Your task to perform on an android device: turn off airplane mode Image 0: 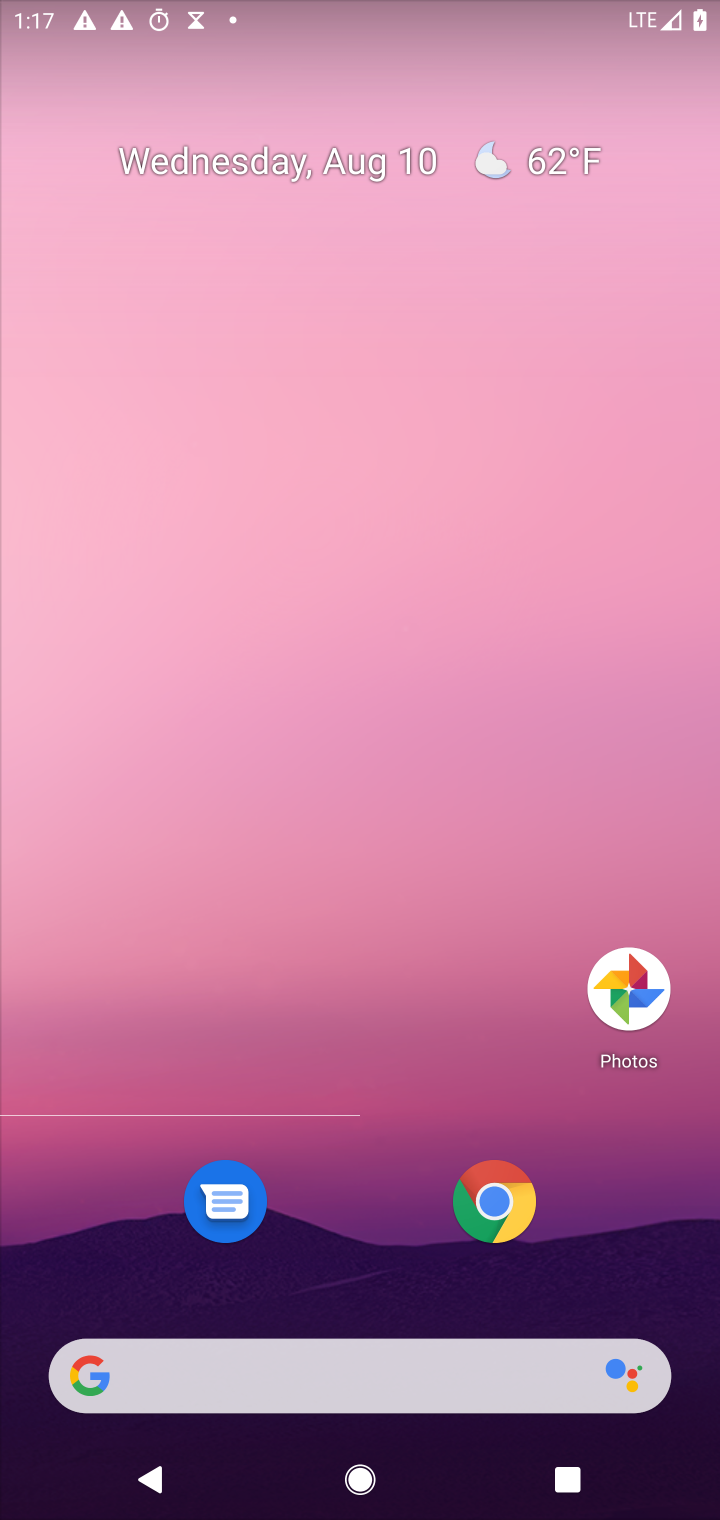
Step 0: press home button
Your task to perform on an android device: turn off airplane mode Image 1: 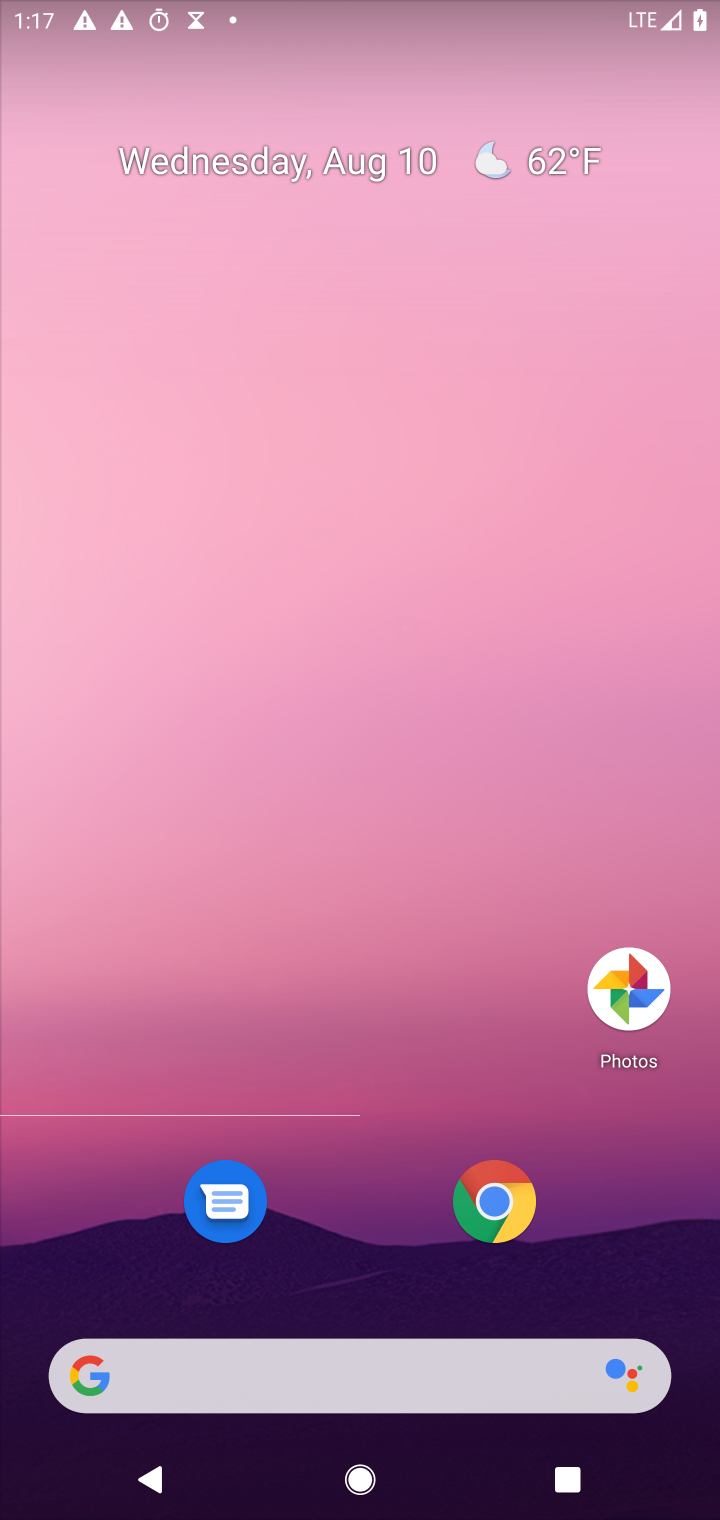
Step 1: drag from (348, 1168) to (306, 47)
Your task to perform on an android device: turn off airplane mode Image 2: 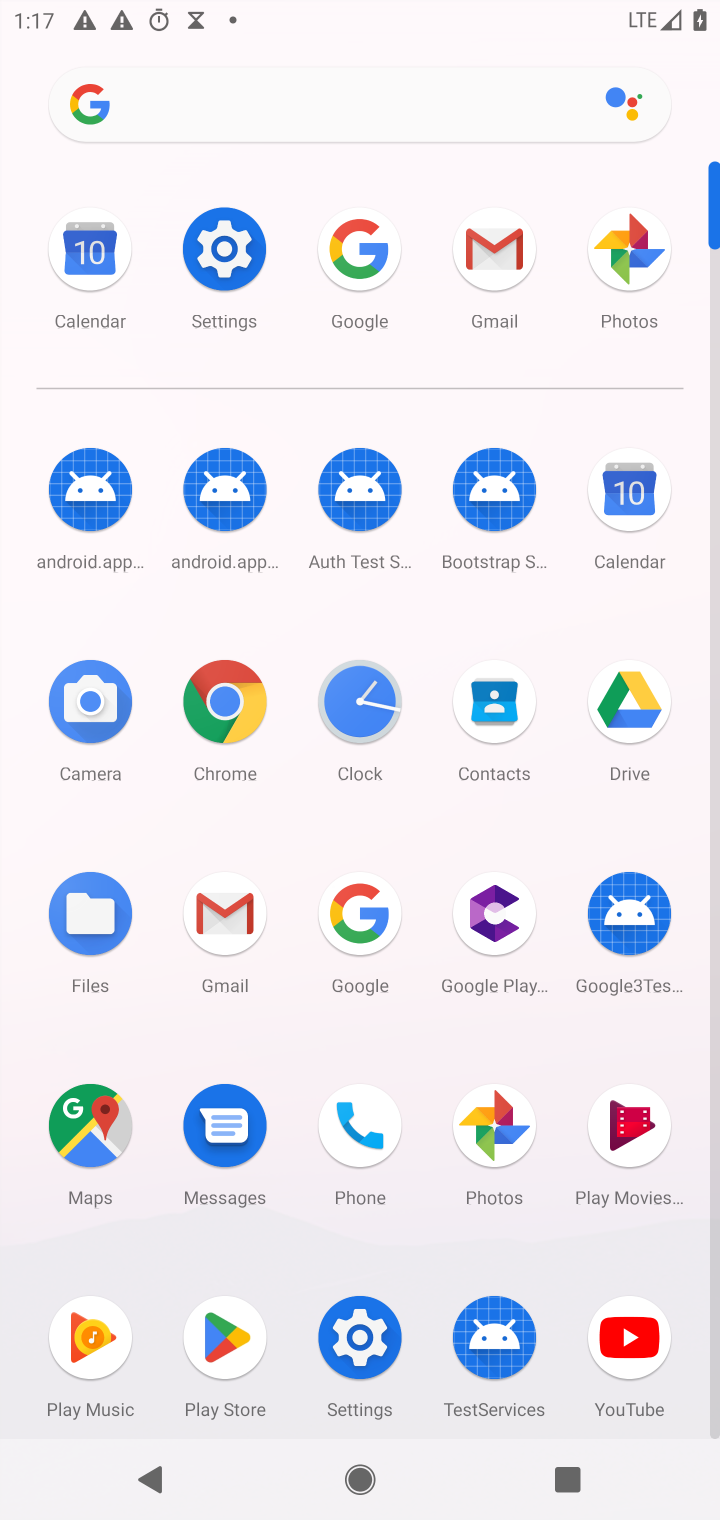
Step 2: click (203, 252)
Your task to perform on an android device: turn off airplane mode Image 3: 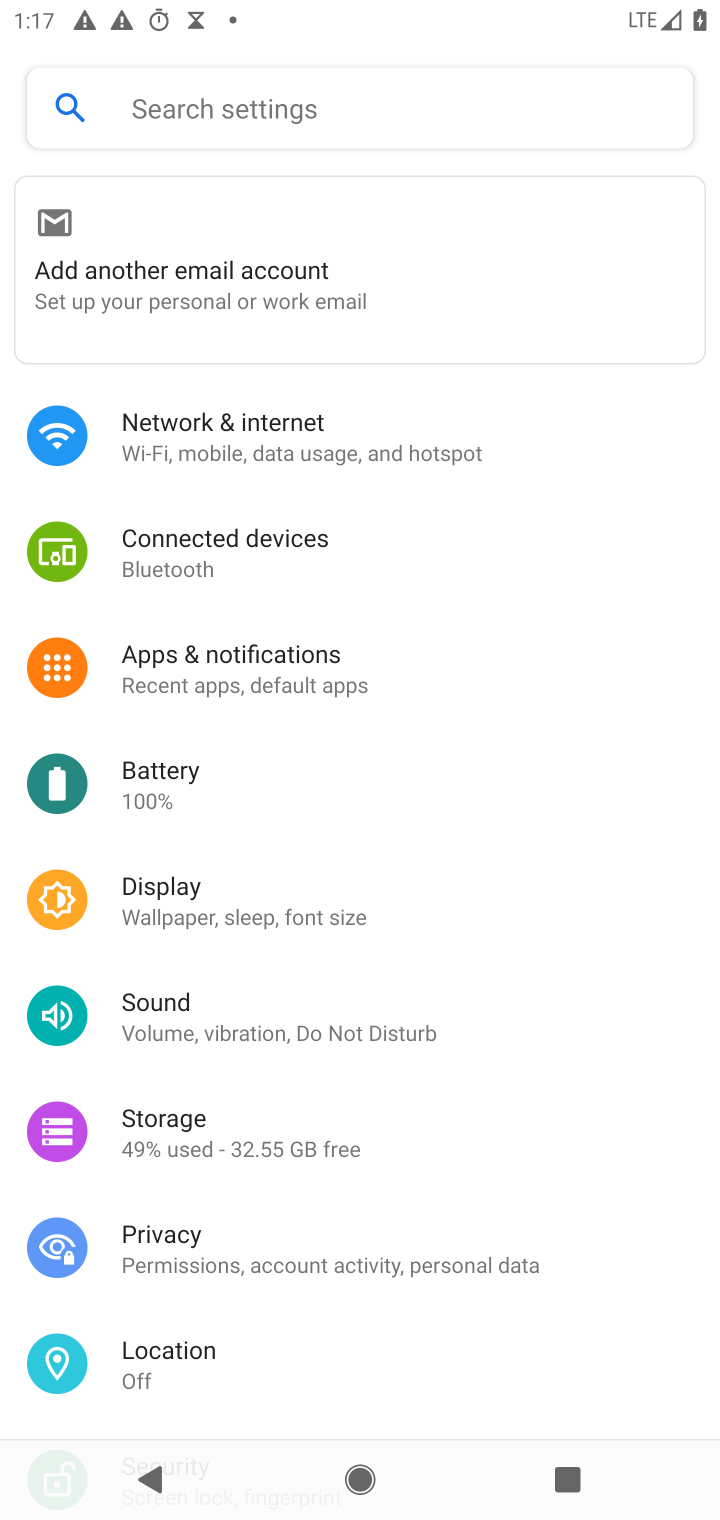
Step 3: click (196, 456)
Your task to perform on an android device: turn off airplane mode Image 4: 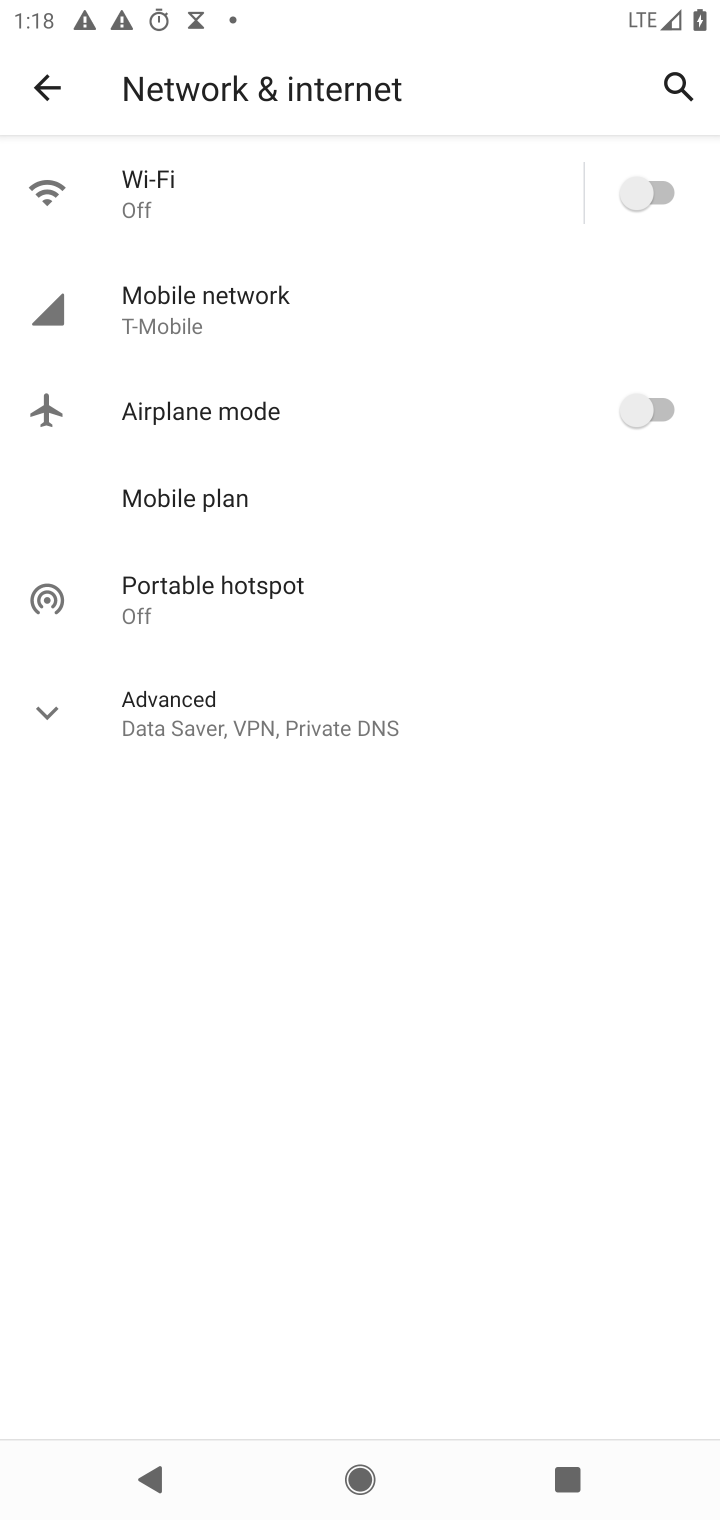
Step 4: task complete